Your task to perform on an android device: Check the weather Image 0: 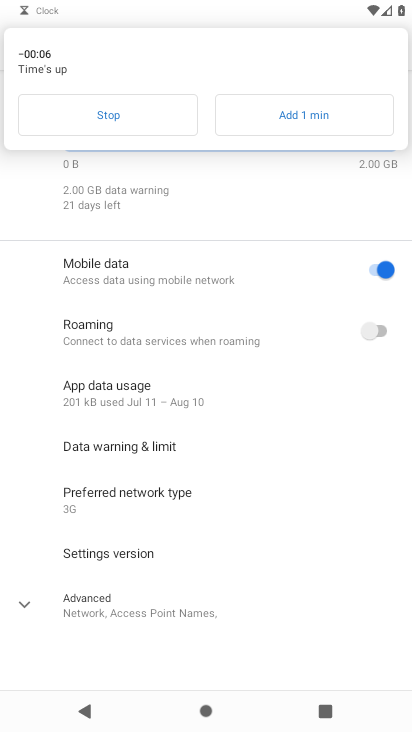
Step 0: press home button
Your task to perform on an android device: Check the weather Image 1: 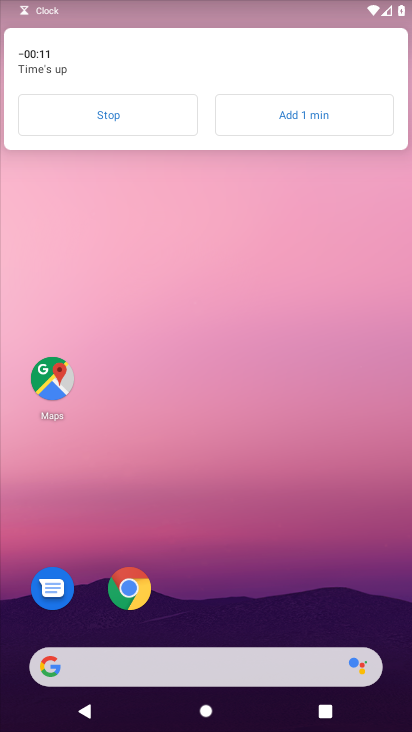
Step 1: click (104, 102)
Your task to perform on an android device: Check the weather Image 2: 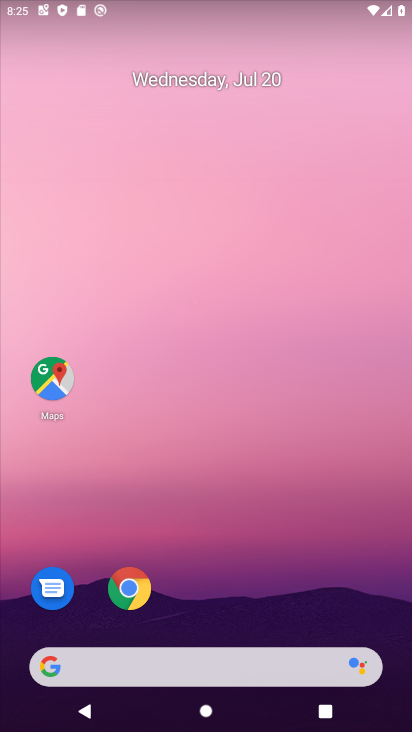
Step 2: click (213, 667)
Your task to perform on an android device: Check the weather Image 3: 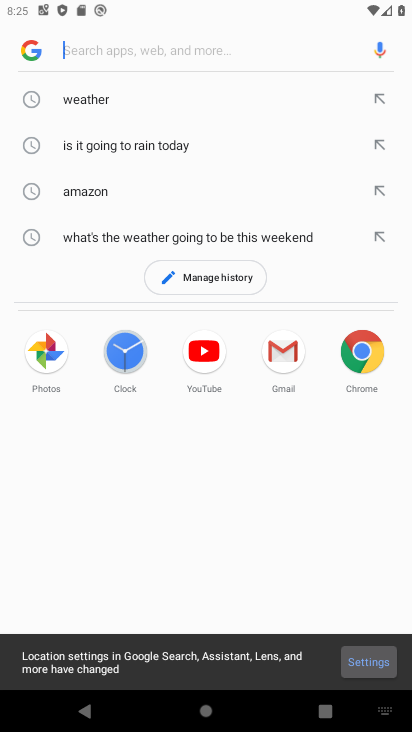
Step 3: click (119, 107)
Your task to perform on an android device: Check the weather Image 4: 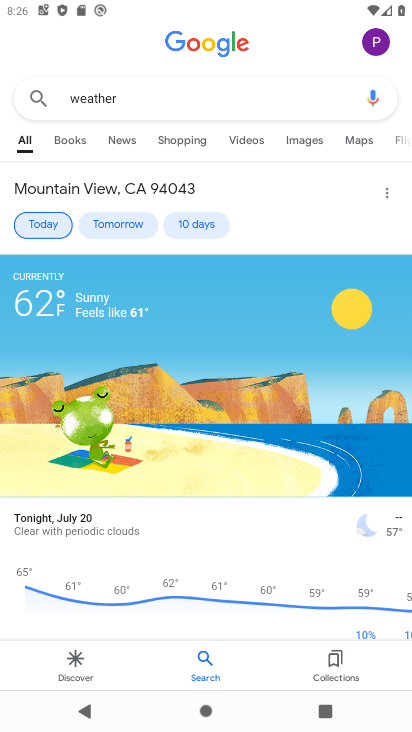
Step 4: task complete